Your task to perform on an android device: Clear the cart on target.com. Search for "dell xps" on target.com, select the first entry, add it to the cart, then select checkout. Image 0: 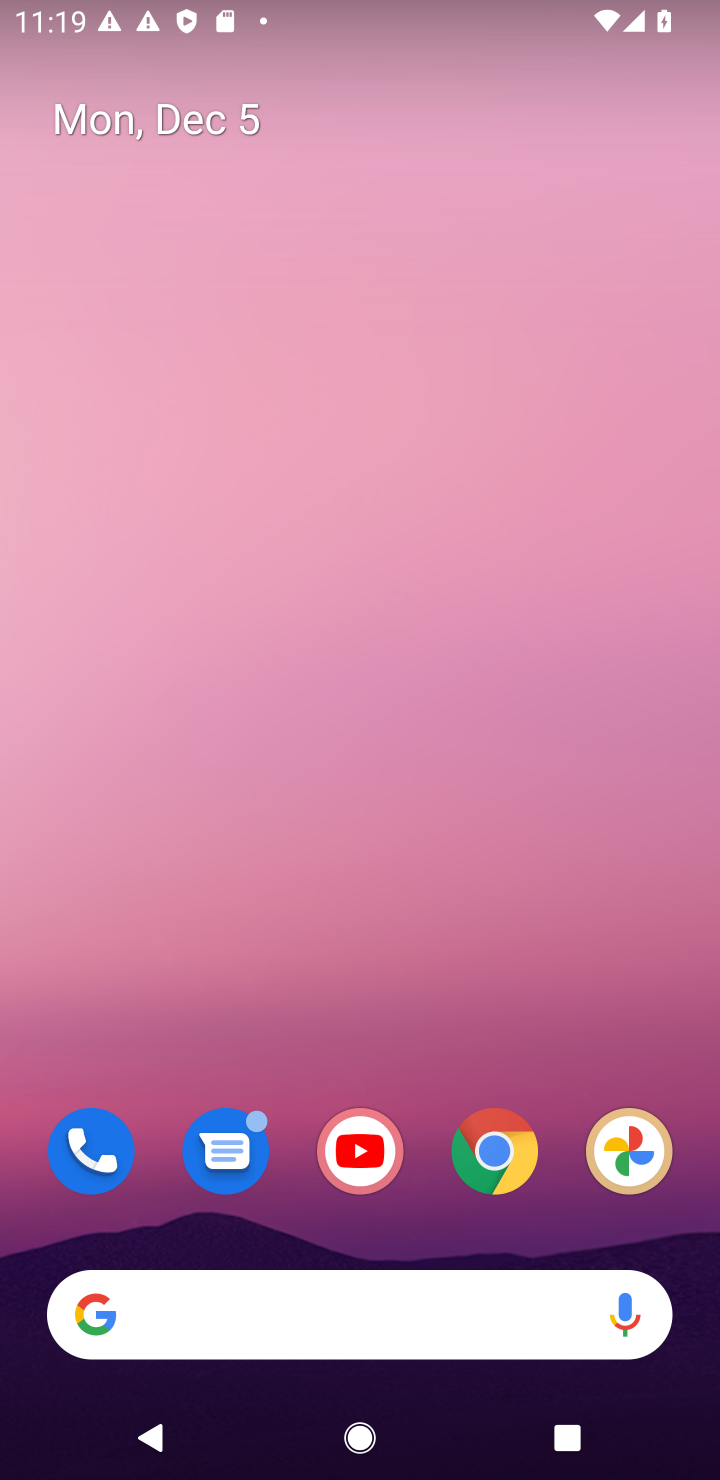
Step 0: click (500, 1137)
Your task to perform on an android device: Clear the cart on target.com. Search for "dell xps" on target.com, select the first entry, add it to the cart, then select checkout. Image 1: 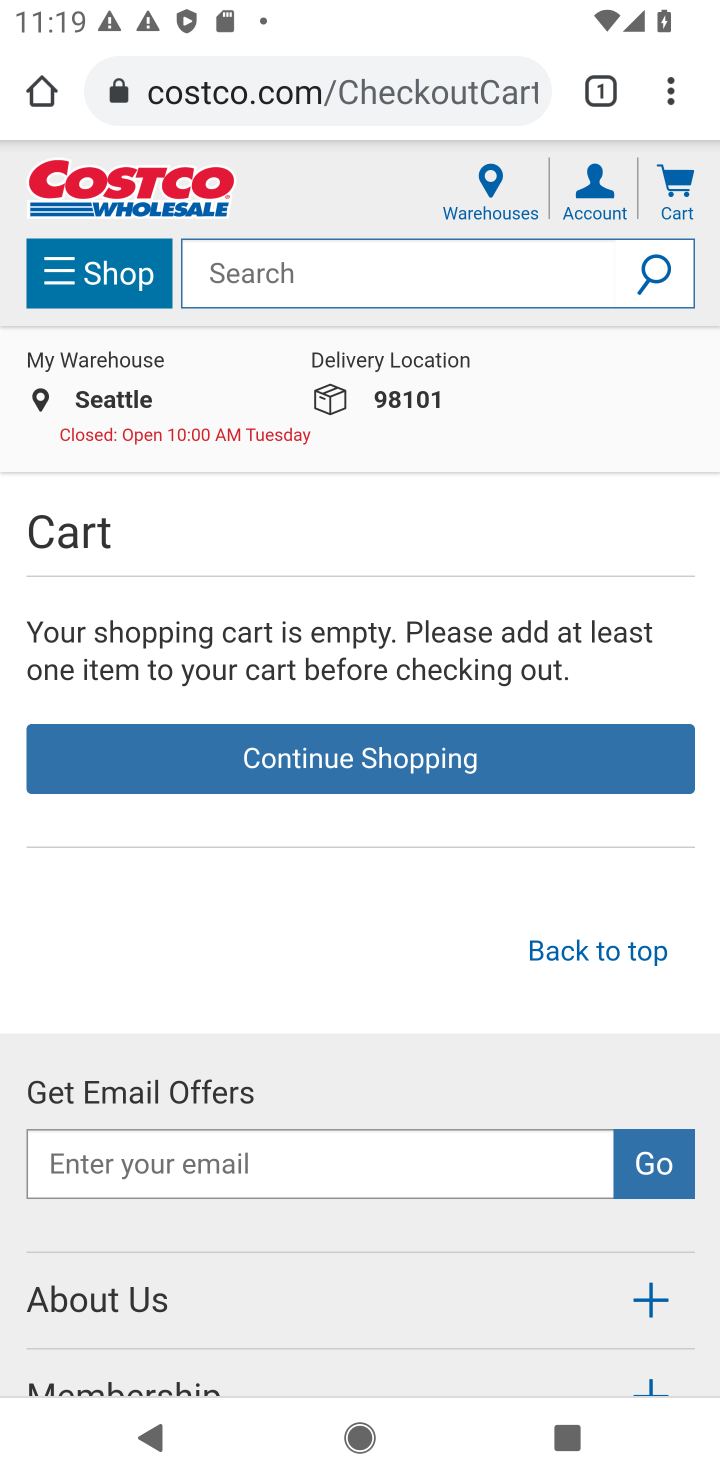
Step 1: click (321, 104)
Your task to perform on an android device: Clear the cart on target.com. Search for "dell xps" on target.com, select the first entry, add it to the cart, then select checkout. Image 2: 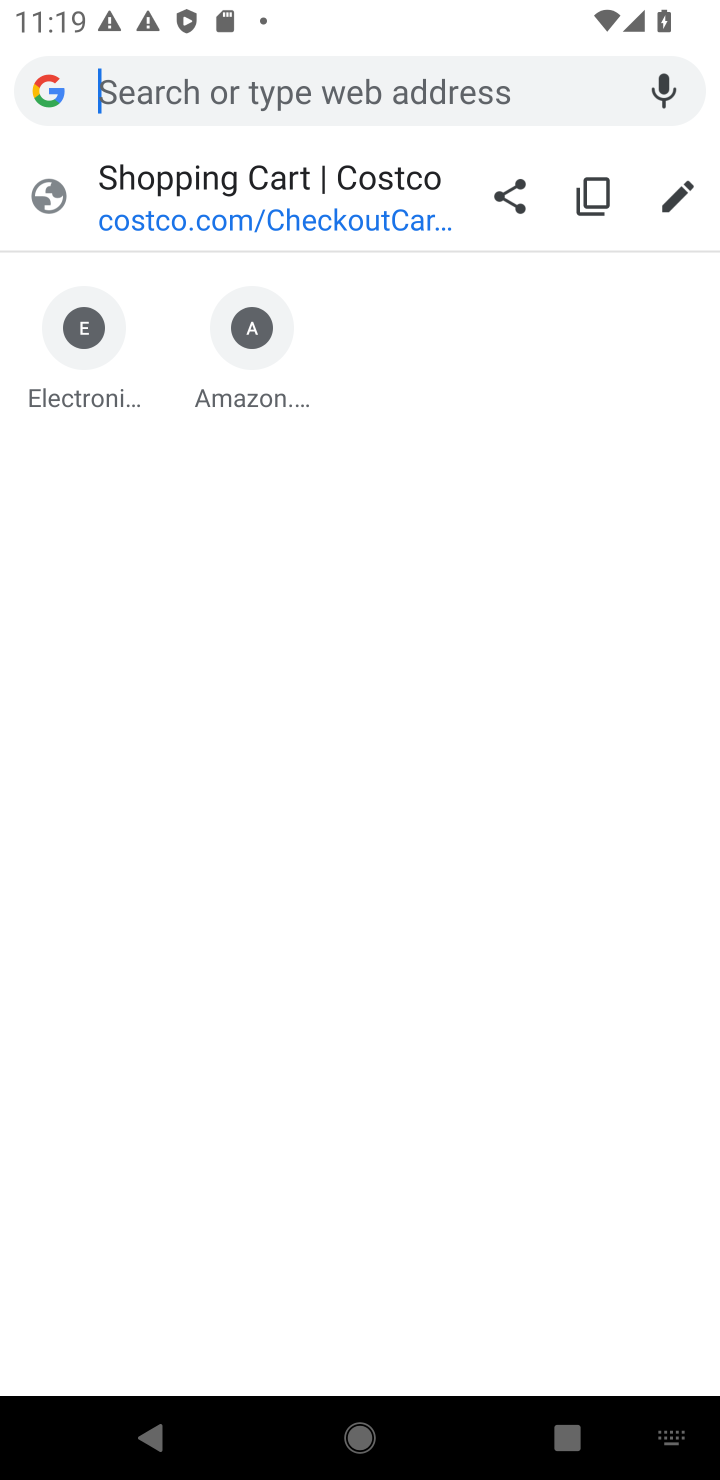
Step 2: type "target.com"
Your task to perform on an android device: Clear the cart on target.com. Search for "dell xps" on target.com, select the first entry, add it to the cart, then select checkout. Image 3: 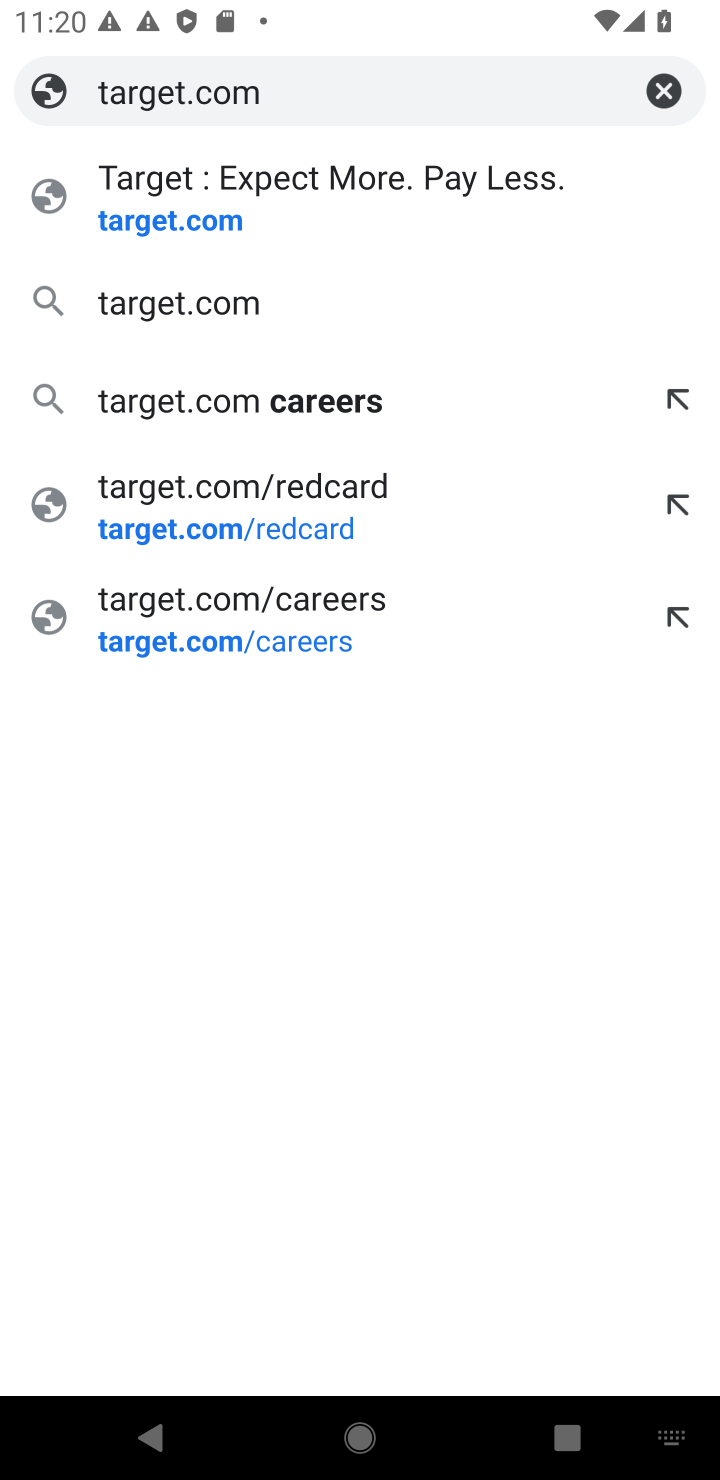
Step 3: click (166, 224)
Your task to perform on an android device: Clear the cart on target.com. Search for "dell xps" on target.com, select the first entry, add it to the cart, then select checkout. Image 4: 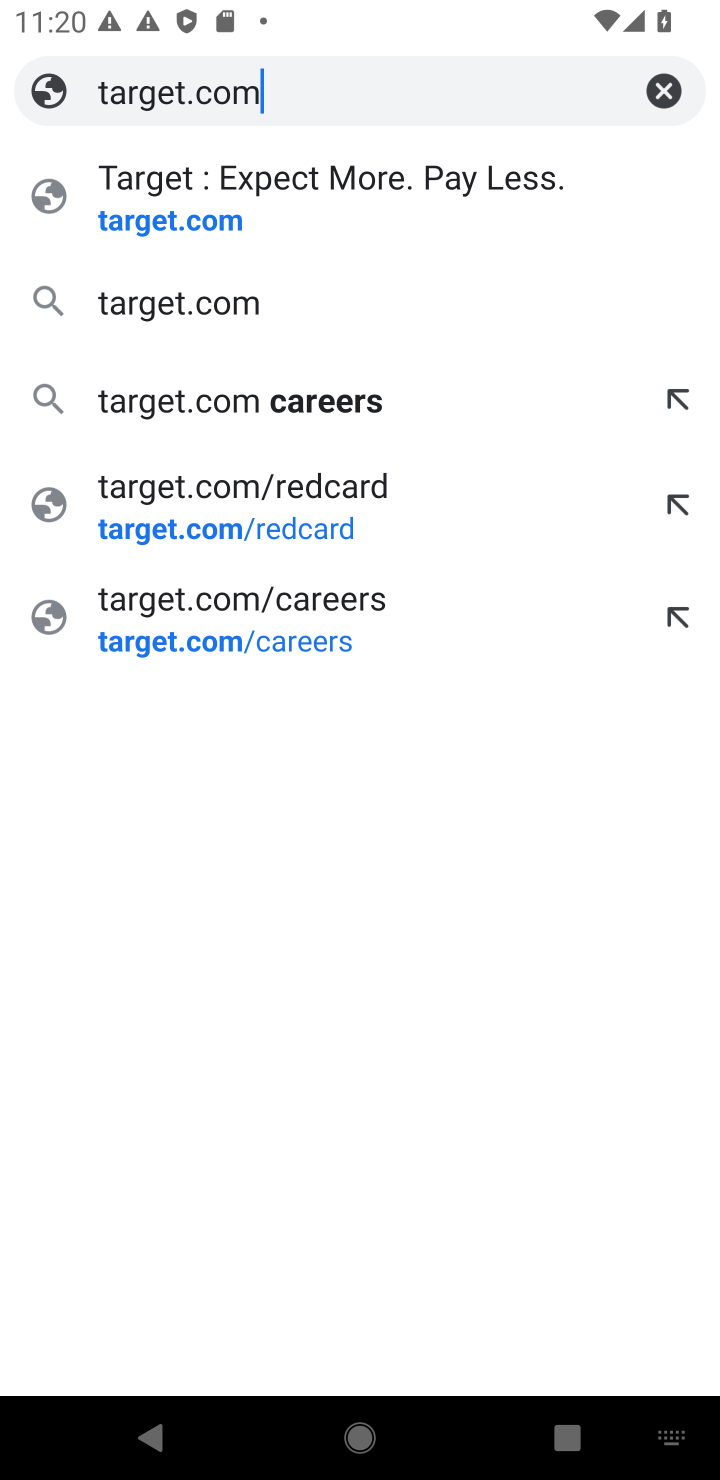
Step 4: click (166, 224)
Your task to perform on an android device: Clear the cart on target.com. Search for "dell xps" on target.com, select the first entry, add it to the cart, then select checkout. Image 5: 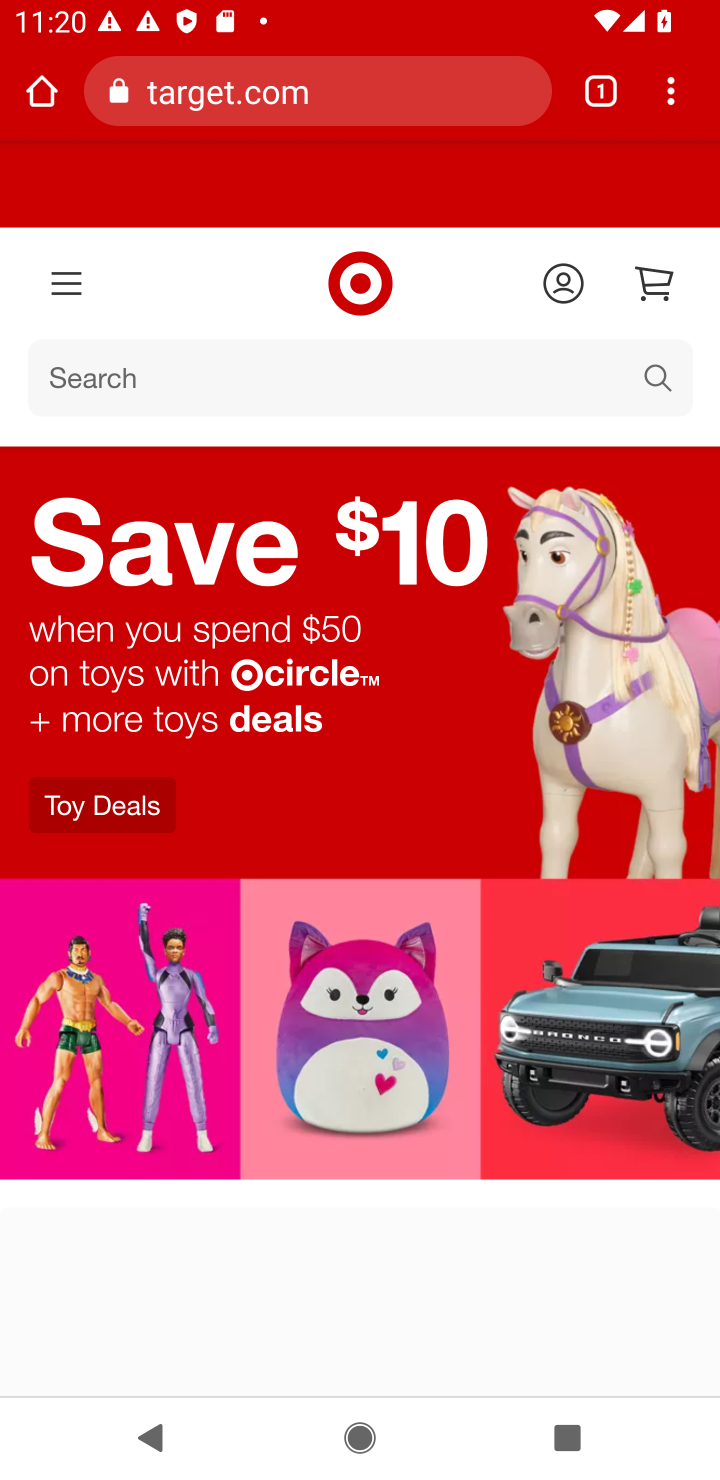
Step 5: click (652, 283)
Your task to perform on an android device: Clear the cart on target.com. Search for "dell xps" on target.com, select the first entry, add it to the cart, then select checkout. Image 6: 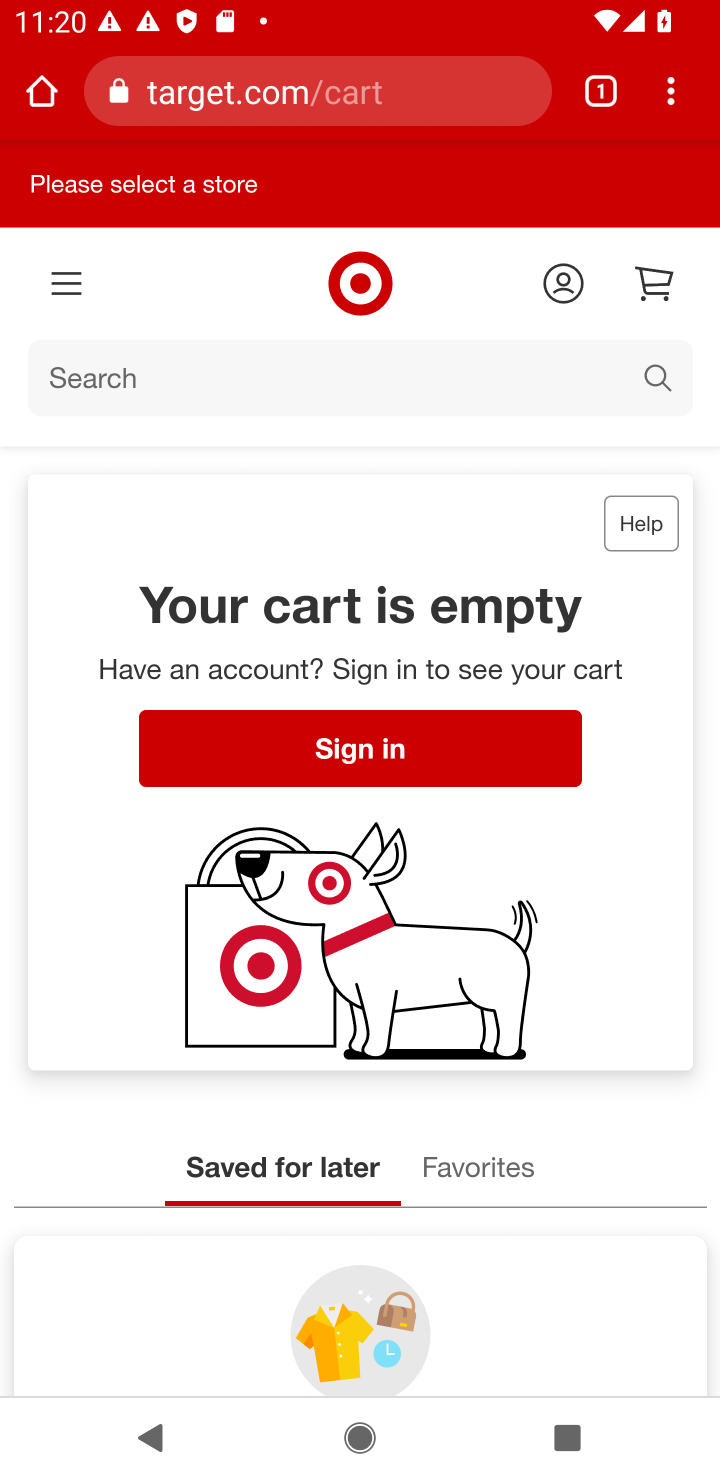
Step 6: click (110, 374)
Your task to perform on an android device: Clear the cart on target.com. Search for "dell xps" on target.com, select the first entry, add it to the cart, then select checkout. Image 7: 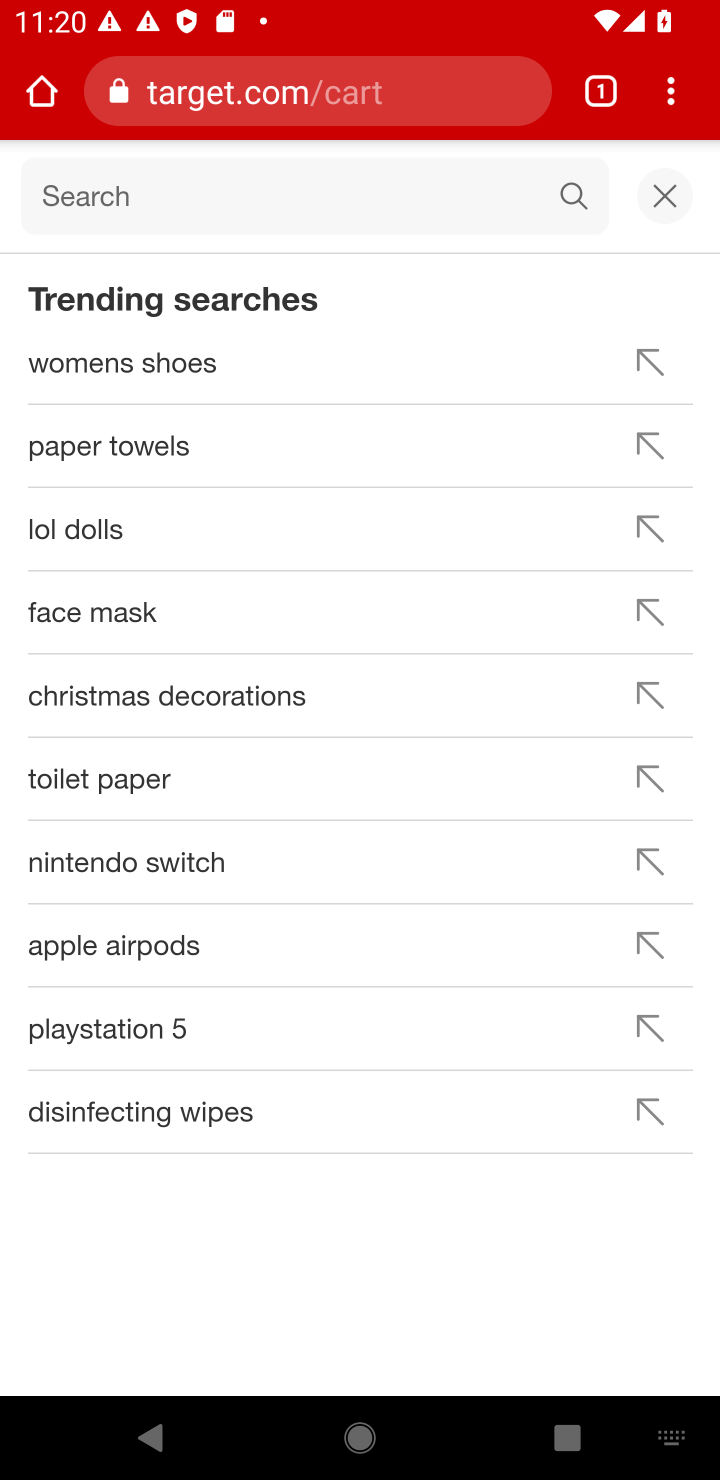
Step 7: type "dell xps"
Your task to perform on an android device: Clear the cart on target.com. Search for "dell xps" on target.com, select the first entry, add it to the cart, then select checkout. Image 8: 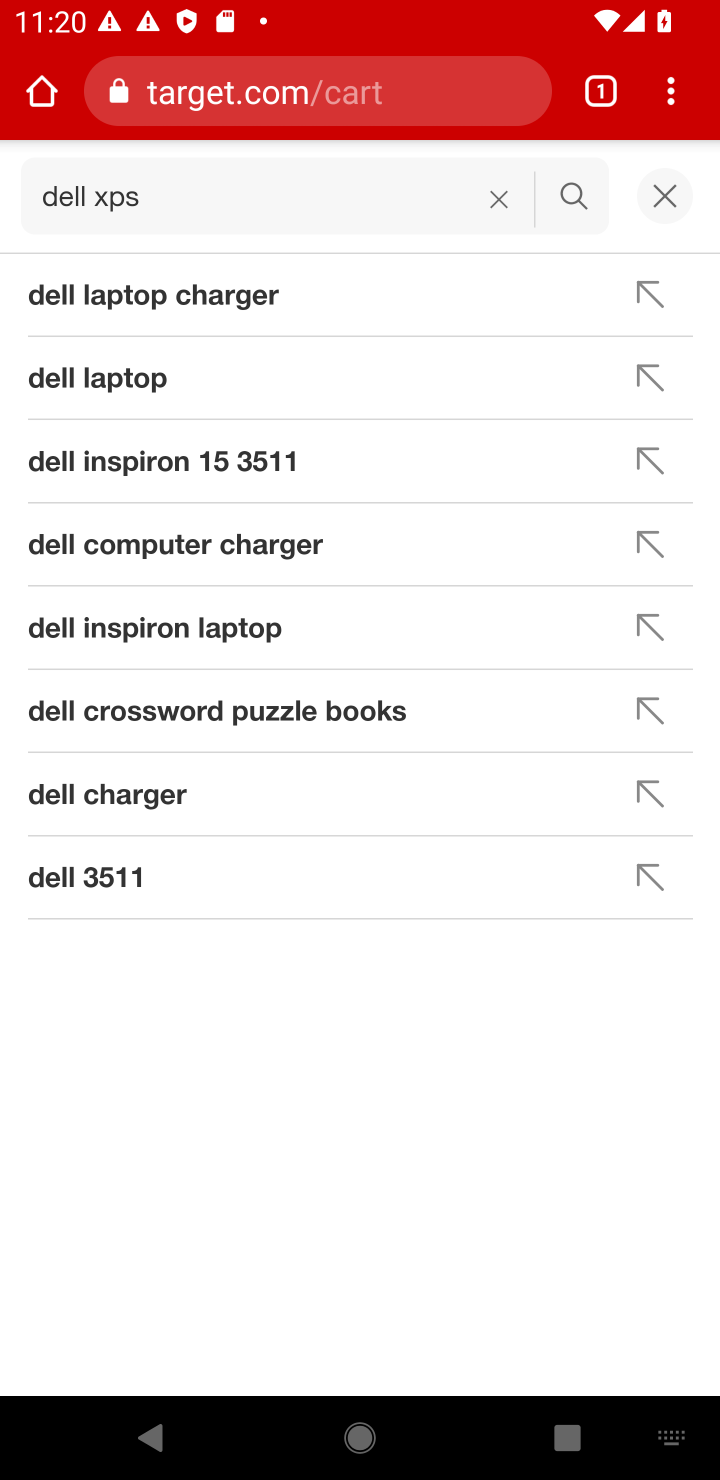
Step 8: click (587, 184)
Your task to perform on an android device: Clear the cart on target.com. Search for "dell xps" on target.com, select the first entry, add it to the cart, then select checkout. Image 9: 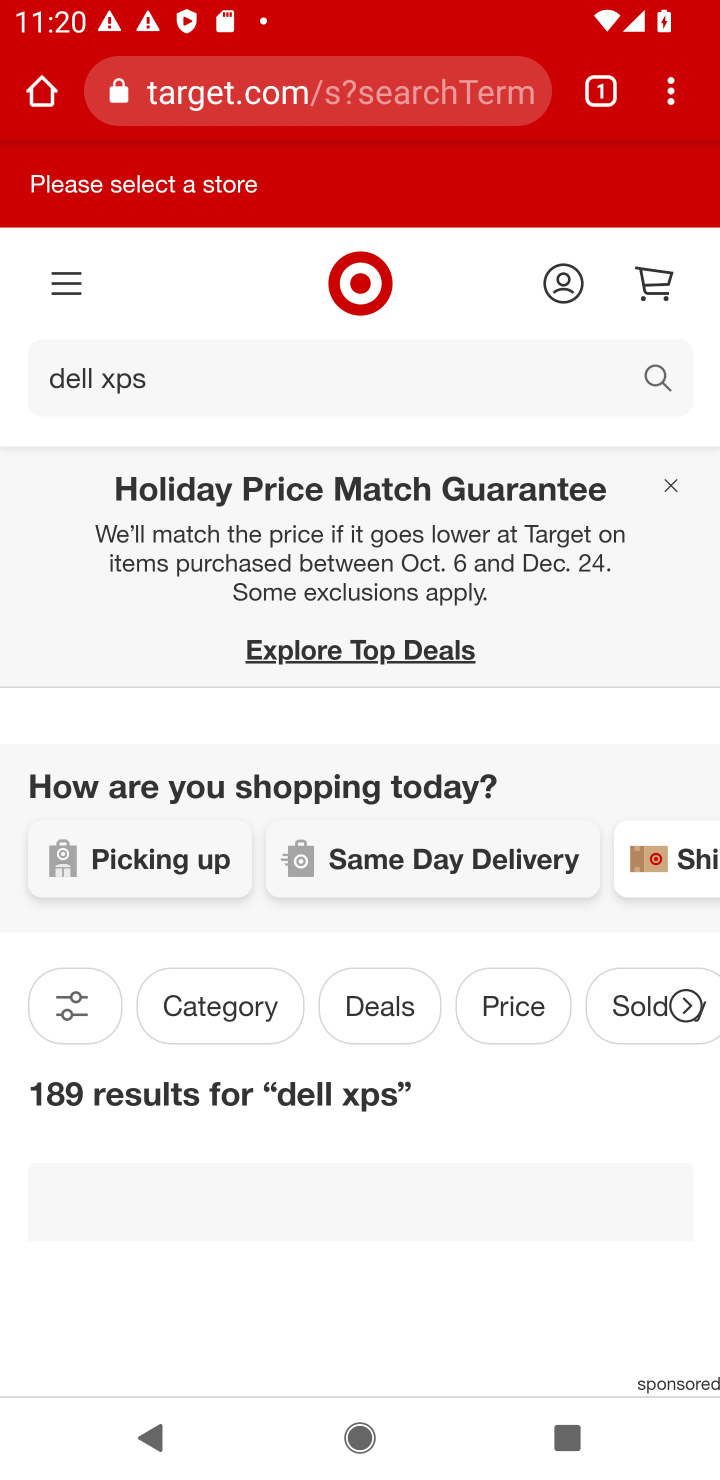
Step 9: task complete